Your task to perform on an android device: turn off smart reply in the gmail app Image 0: 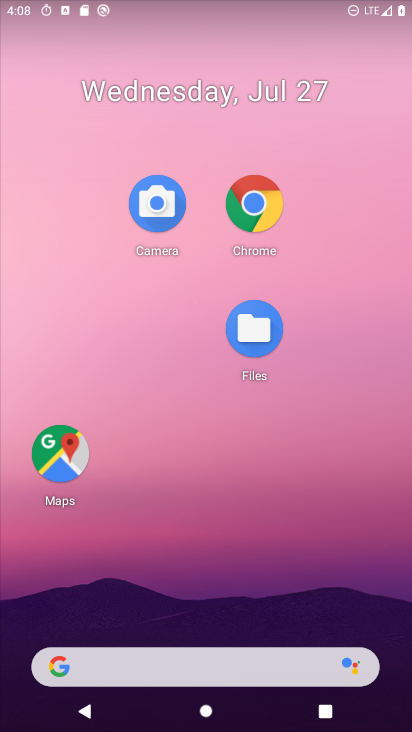
Step 0: drag from (173, 599) to (200, 124)
Your task to perform on an android device: turn off smart reply in the gmail app Image 1: 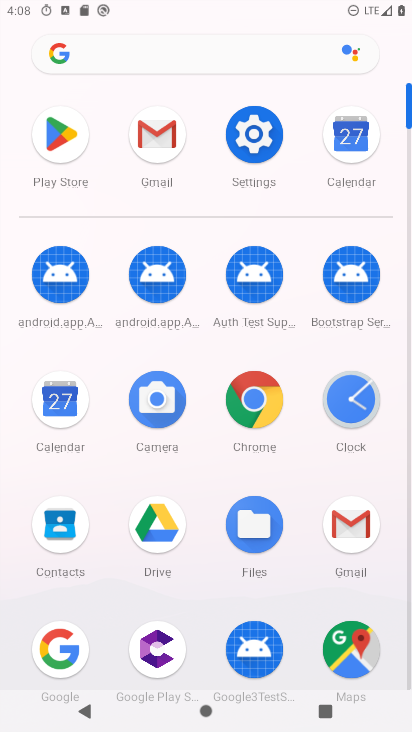
Step 1: click (168, 147)
Your task to perform on an android device: turn off smart reply in the gmail app Image 2: 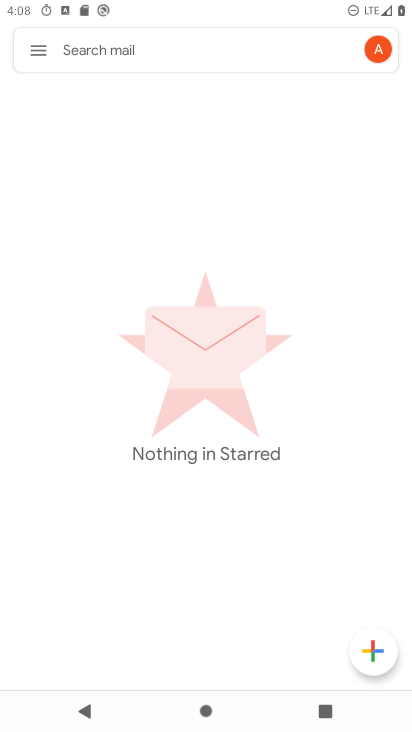
Step 2: click (39, 54)
Your task to perform on an android device: turn off smart reply in the gmail app Image 3: 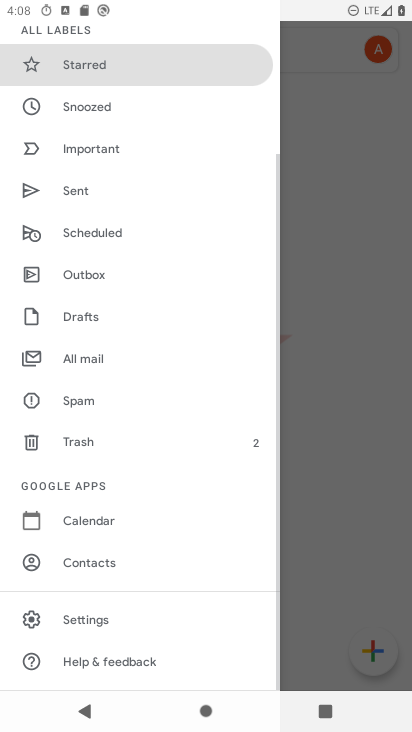
Step 3: click (111, 622)
Your task to perform on an android device: turn off smart reply in the gmail app Image 4: 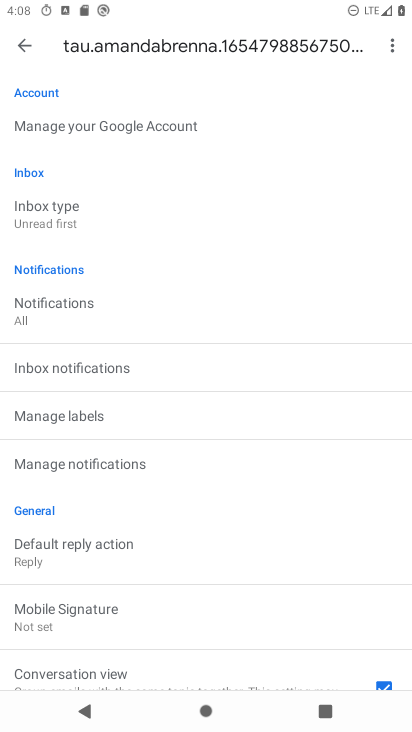
Step 4: drag from (127, 597) to (150, 212)
Your task to perform on an android device: turn off smart reply in the gmail app Image 5: 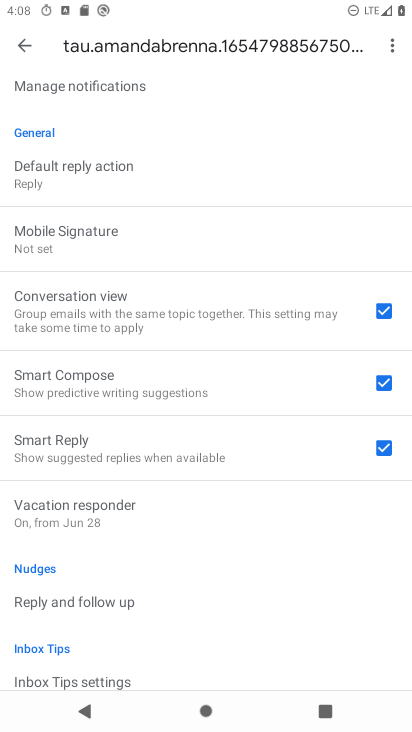
Step 5: click (389, 447)
Your task to perform on an android device: turn off smart reply in the gmail app Image 6: 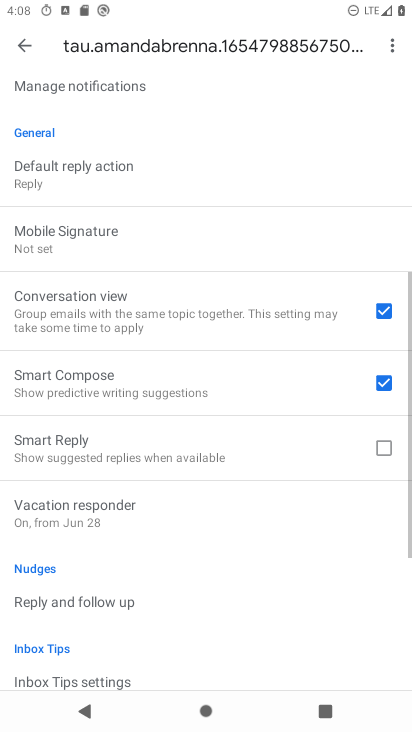
Step 6: task complete